Your task to perform on an android device: Search for amazon basics triple a on costco.com, select the first entry, and add it to the cart. Image 0: 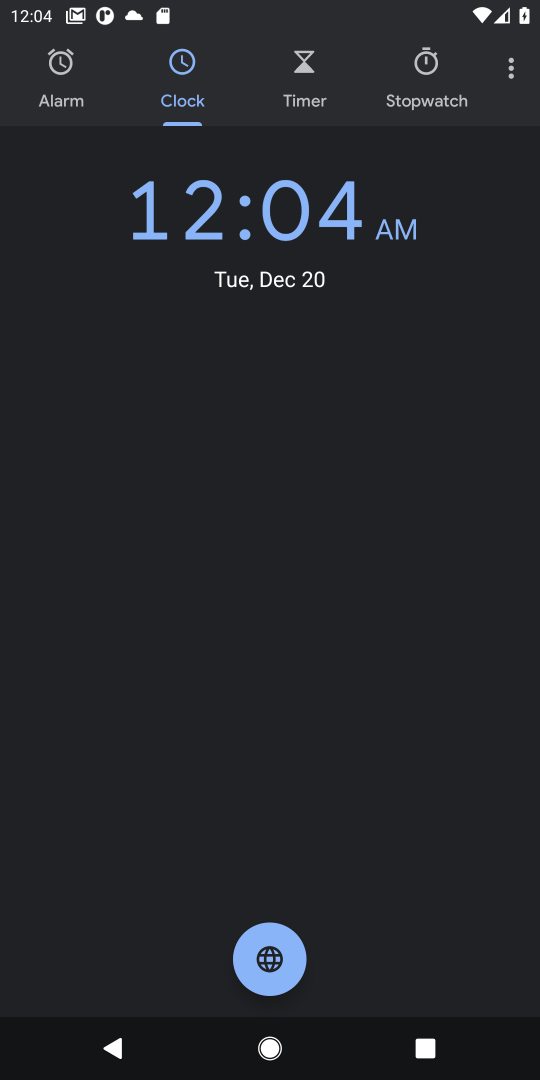
Step 0: press home button
Your task to perform on an android device: Search for amazon basics triple a on costco.com, select the first entry, and add it to the cart. Image 1: 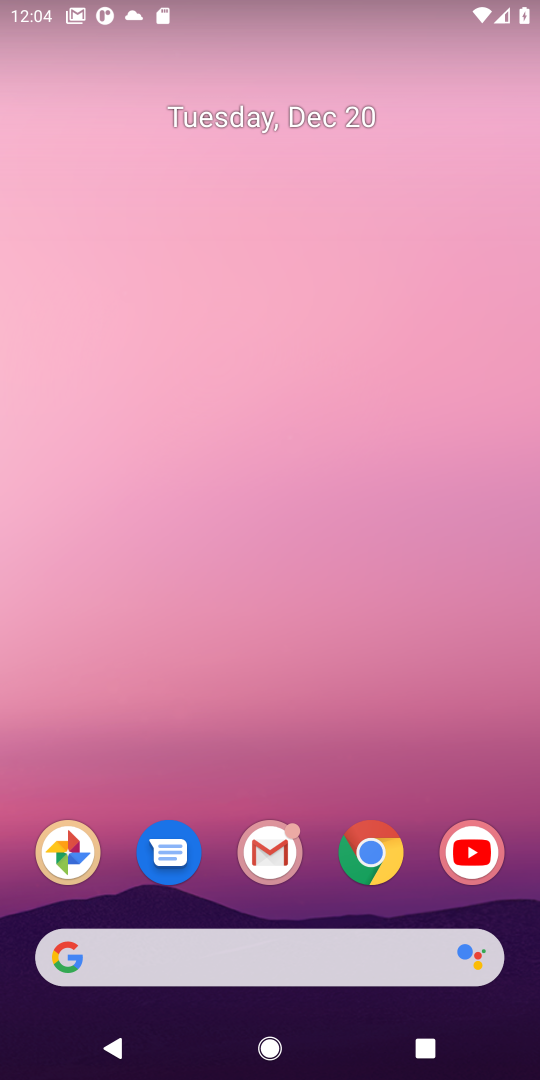
Step 1: click (377, 854)
Your task to perform on an android device: Search for amazon basics triple a on costco.com, select the first entry, and add it to the cart. Image 2: 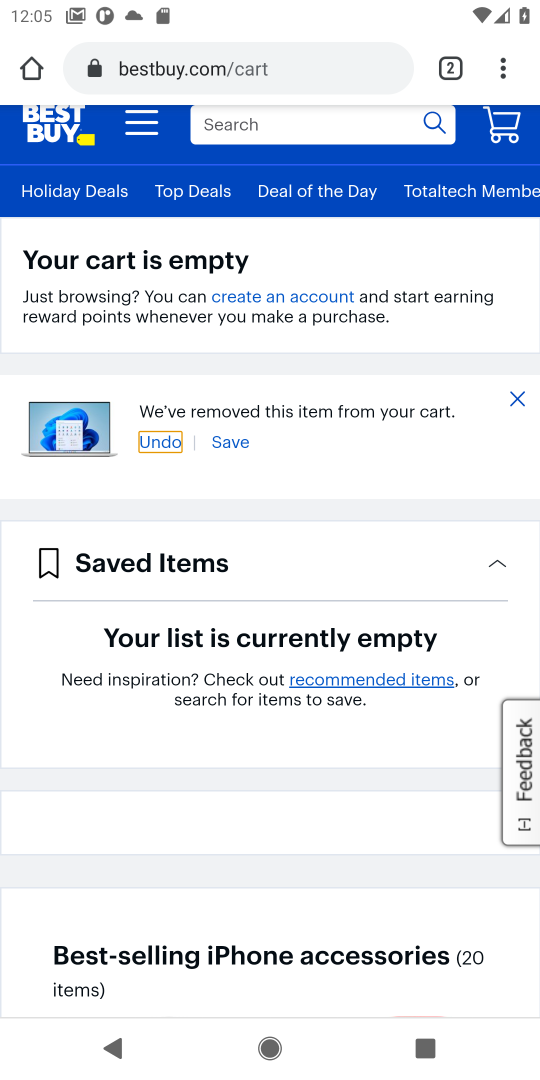
Step 2: click (217, 67)
Your task to perform on an android device: Search for amazon basics triple a on costco.com, select the first entry, and add it to the cart. Image 3: 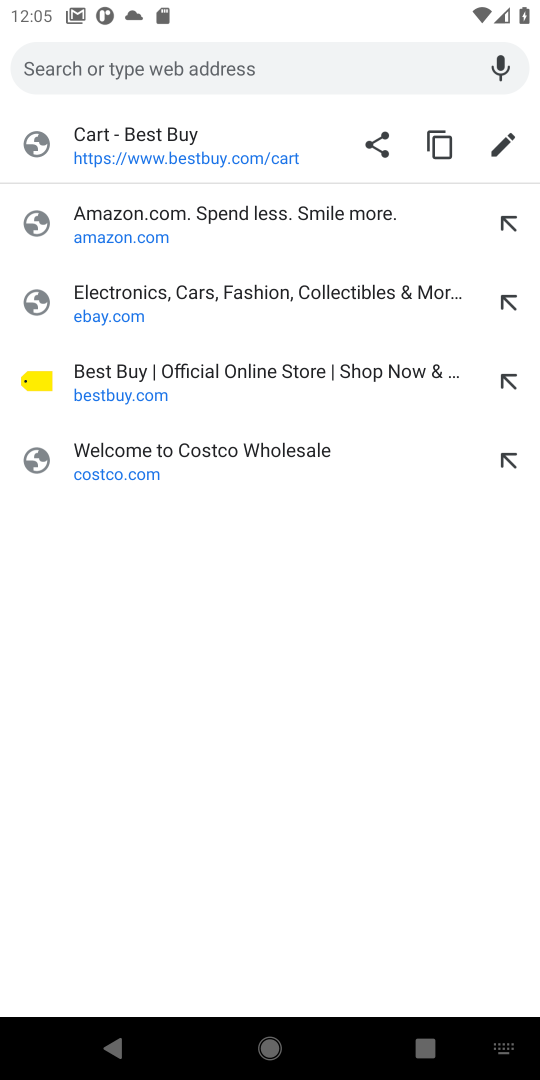
Step 3: click (98, 473)
Your task to perform on an android device: Search for amazon basics triple a on costco.com, select the first entry, and add it to the cart. Image 4: 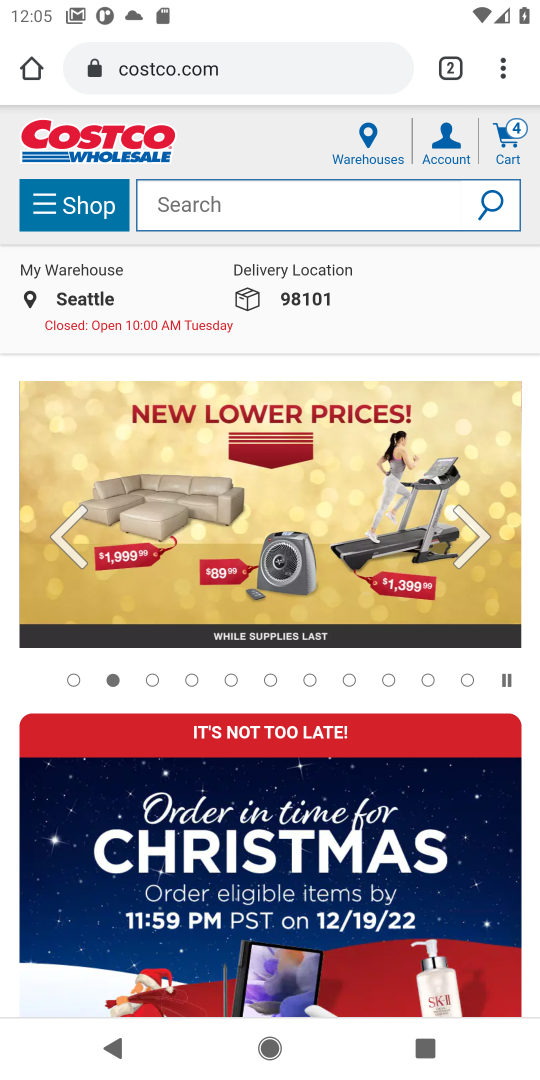
Step 4: click (220, 216)
Your task to perform on an android device: Search for amazon basics triple a on costco.com, select the first entry, and add it to the cart. Image 5: 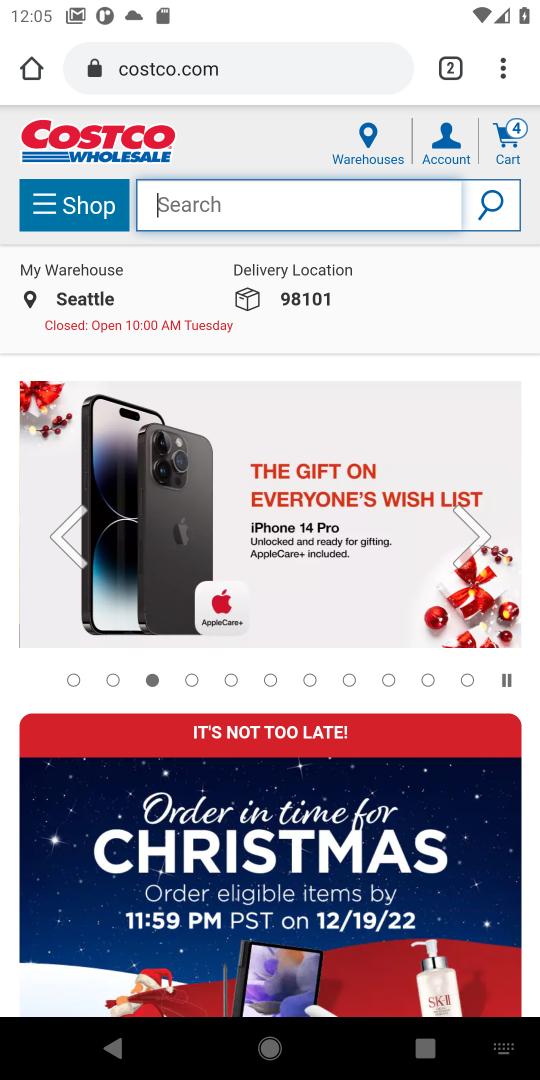
Step 5: type "amazon basics triple a "
Your task to perform on an android device: Search for amazon basics triple a on costco.com, select the first entry, and add it to the cart. Image 6: 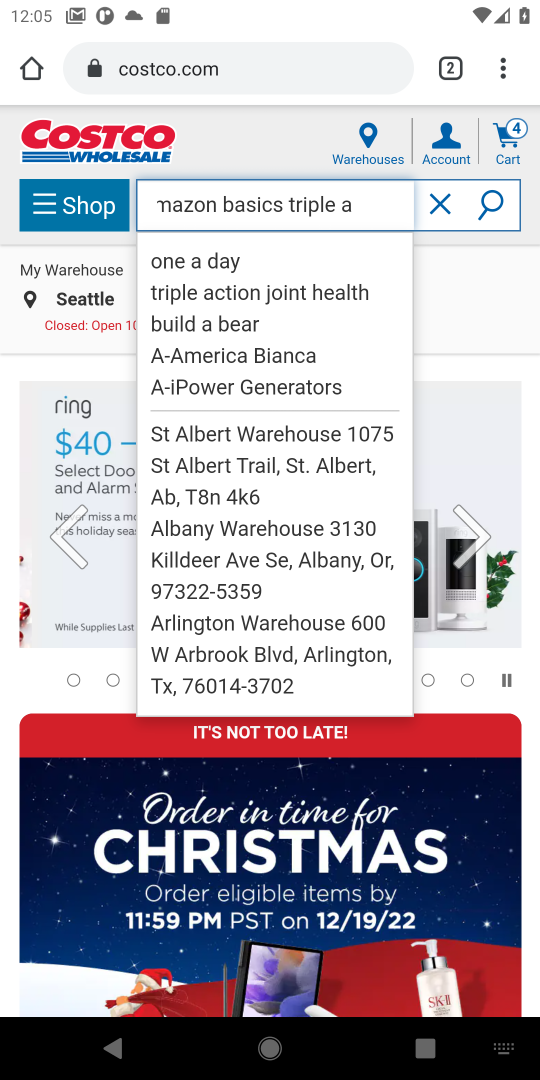
Step 6: click (500, 208)
Your task to perform on an android device: Search for amazon basics triple a on costco.com, select the first entry, and add it to the cart. Image 7: 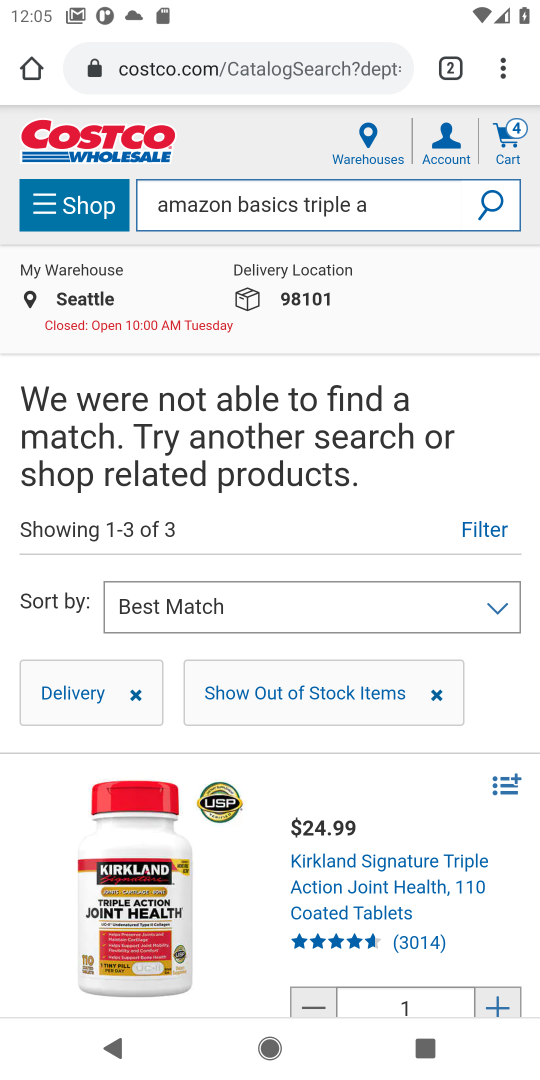
Step 7: task complete